Your task to perform on an android device: Toggle the flashlight Image 0: 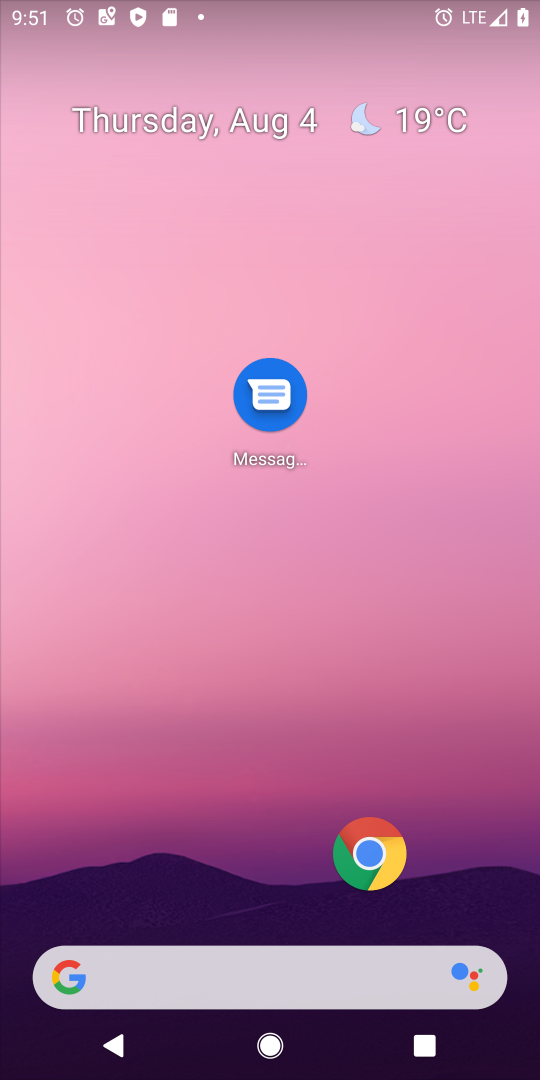
Step 0: drag from (322, 5) to (324, 559)
Your task to perform on an android device: Toggle the flashlight Image 1: 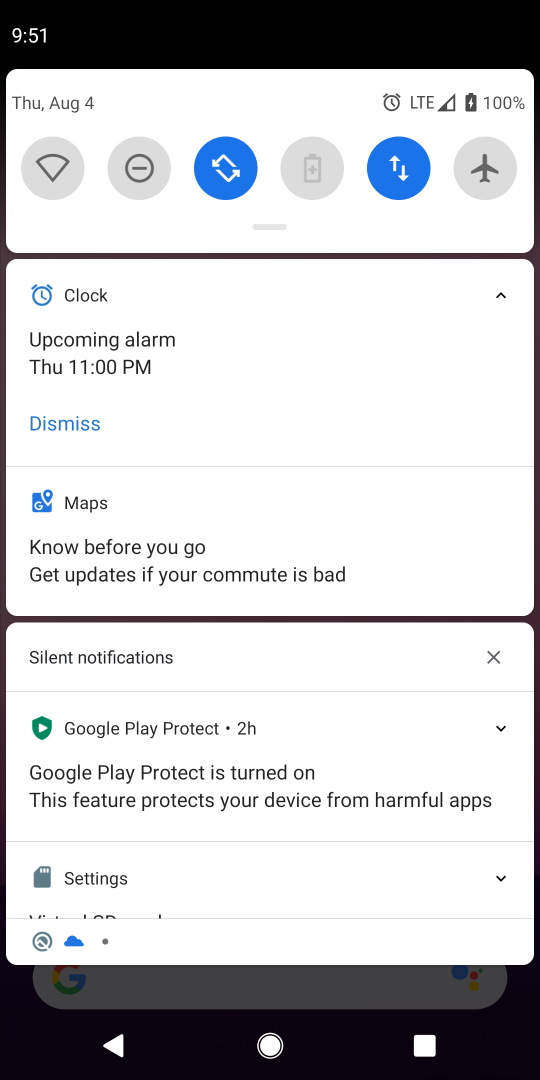
Step 1: drag from (243, 185) to (331, 705)
Your task to perform on an android device: Toggle the flashlight Image 2: 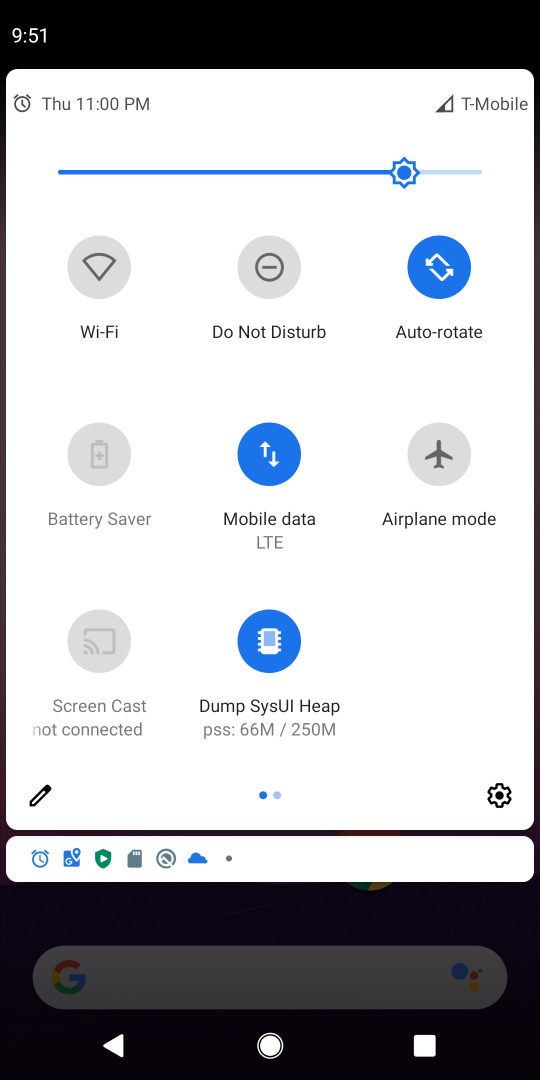
Step 2: drag from (481, 552) to (12, 715)
Your task to perform on an android device: Toggle the flashlight Image 3: 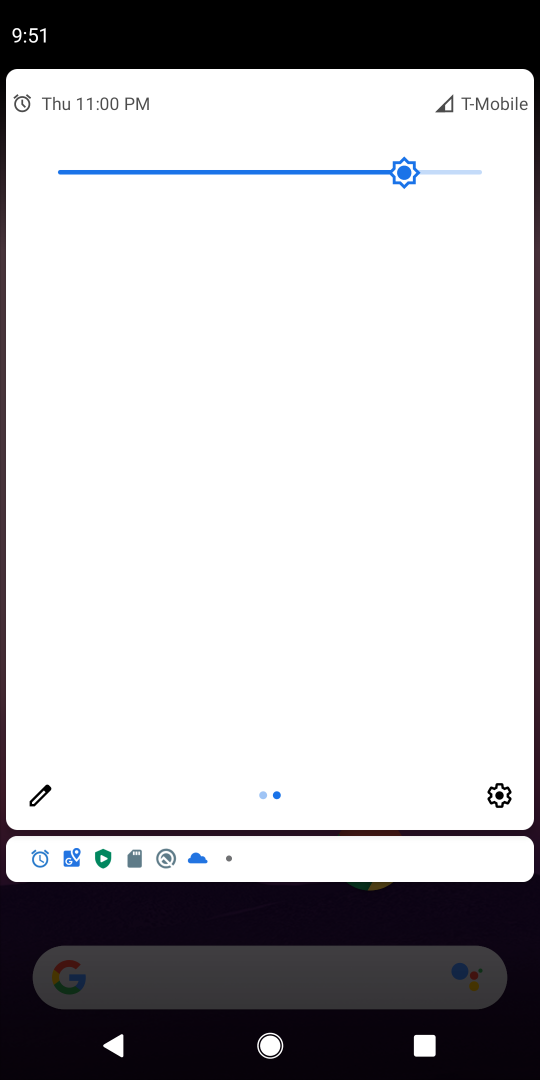
Step 3: click (31, 799)
Your task to perform on an android device: Toggle the flashlight Image 4: 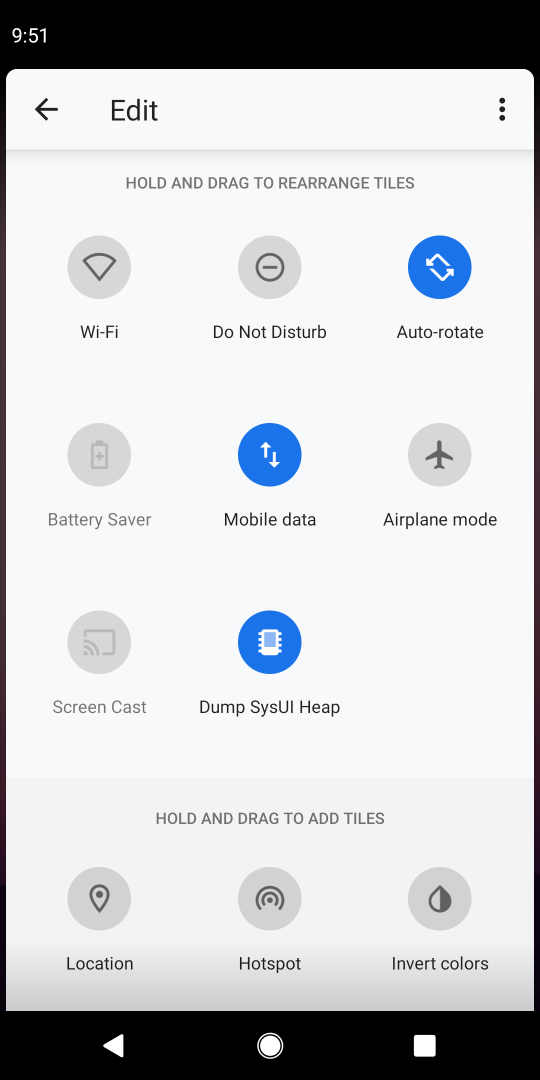
Step 4: task complete